Your task to perform on an android device: set default search engine in the chrome app Image 0: 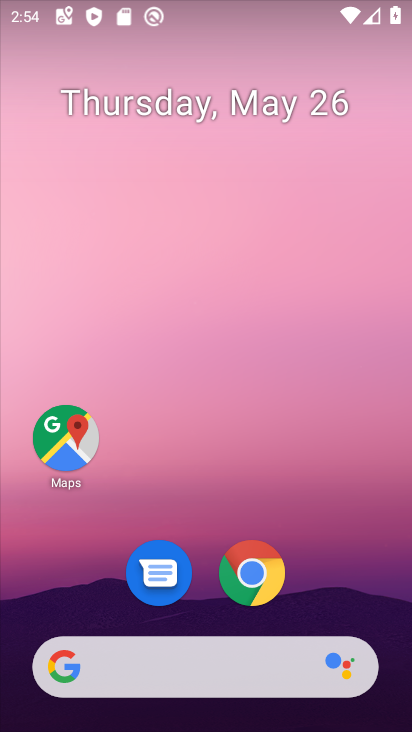
Step 0: press home button
Your task to perform on an android device: set default search engine in the chrome app Image 1: 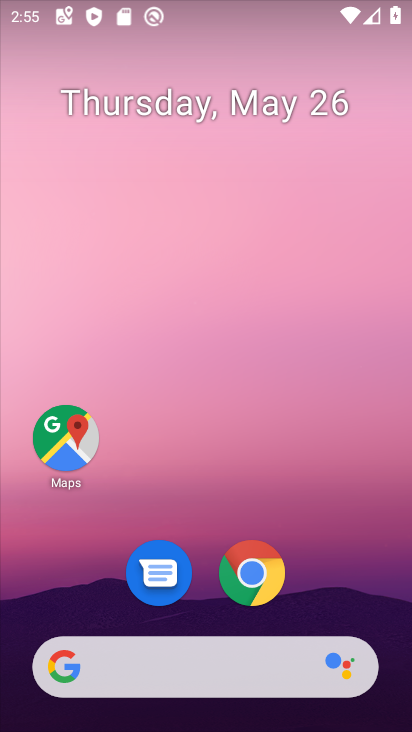
Step 1: click (214, 567)
Your task to perform on an android device: set default search engine in the chrome app Image 2: 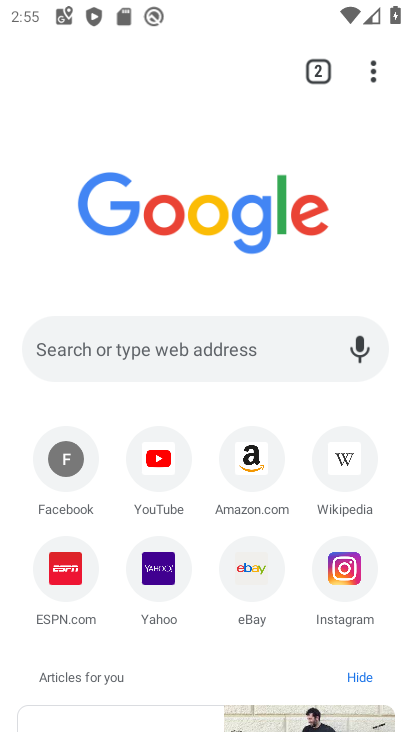
Step 2: drag from (374, 87) to (133, 594)
Your task to perform on an android device: set default search engine in the chrome app Image 3: 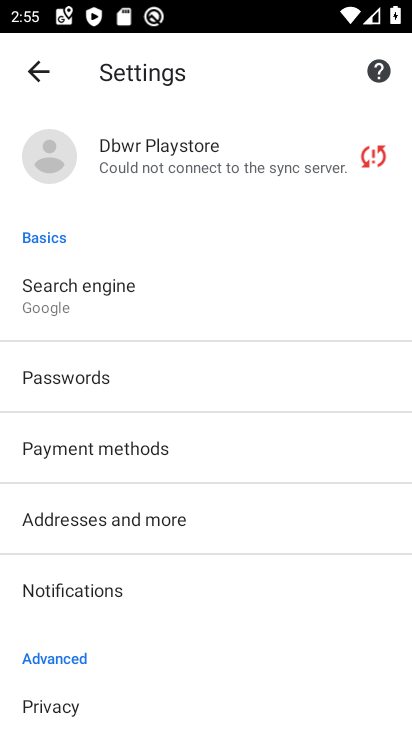
Step 3: click (109, 312)
Your task to perform on an android device: set default search engine in the chrome app Image 4: 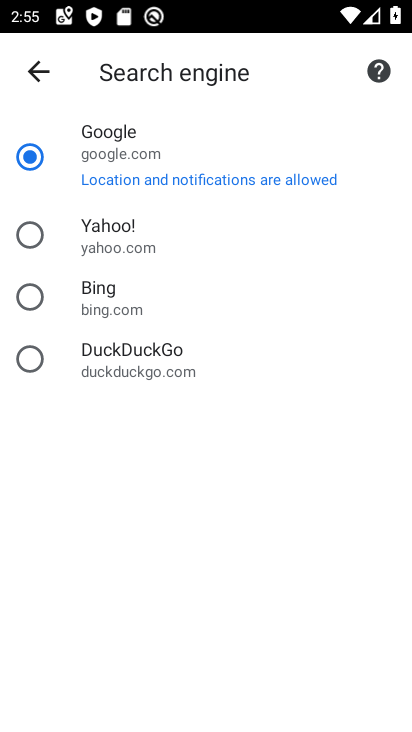
Step 4: click (101, 248)
Your task to perform on an android device: set default search engine in the chrome app Image 5: 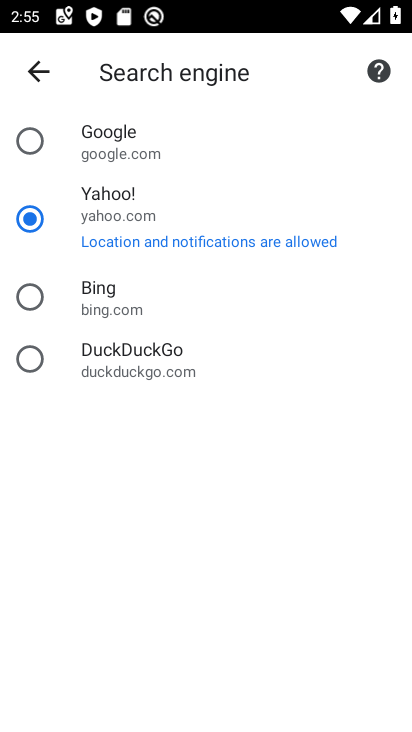
Step 5: task complete